Your task to perform on an android device: Open CNN.com Image 0: 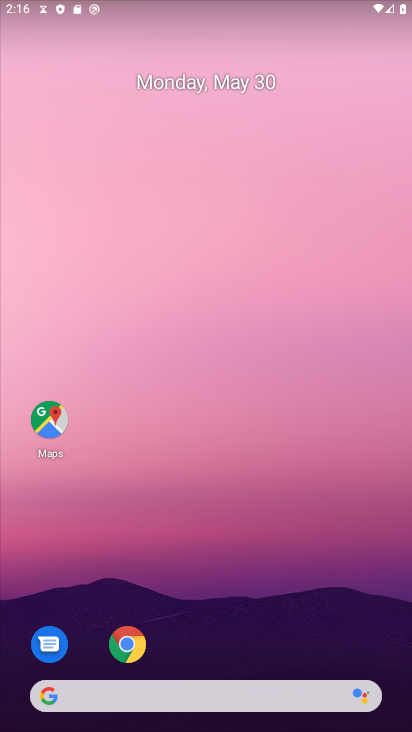
Step 0: click (169, 690)
Your task to perform on an android device: Open CNN.com Image 1: 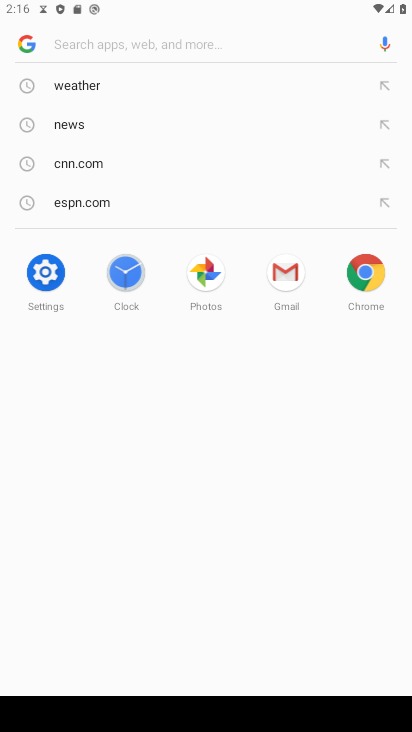
Step 1: type "CNN.com"
Your task to perform on an android device: Open CNN.com Image 2: 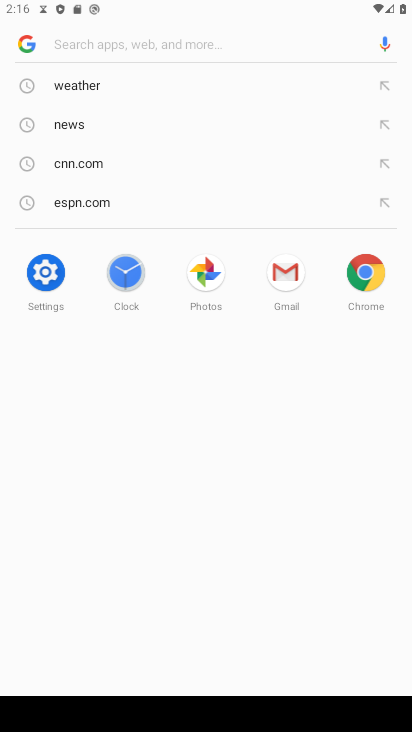
Step 2: click (131, 31)
Your task to perform on an android device: Open CNN.com Image 3: 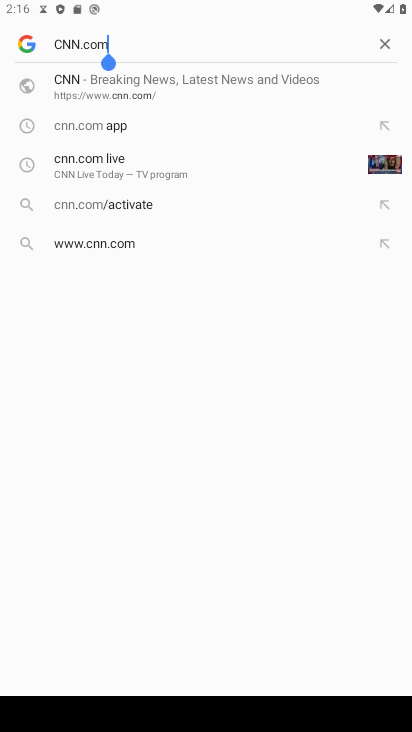
Step 3: click (154, 92)
Your task to perform on an android device: Open CNN.com Image 4: 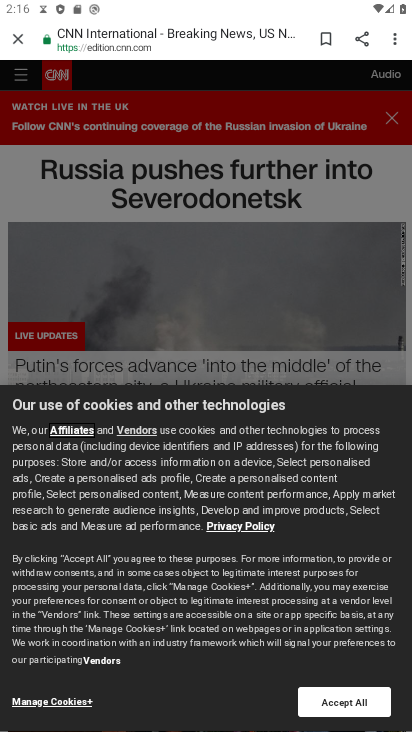
Step 4: task complete